Your task to perform on an android device: refresh tabs in the chrome app Image 0: 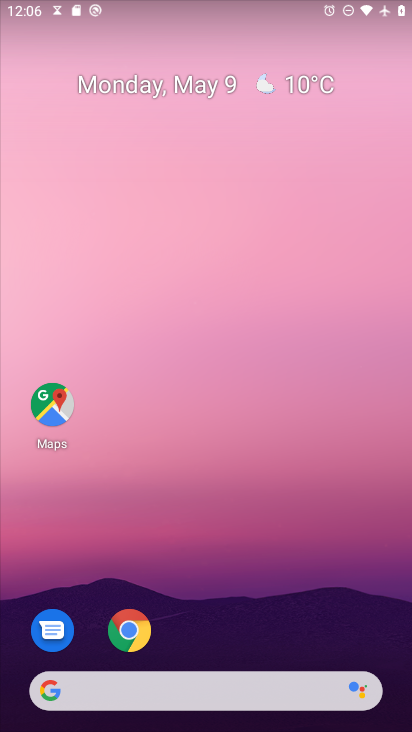
Step 0: drag from (165, 691) to (364, 51)
Your task to perform on an android device: refresh tabs in the chrome app Image 1: 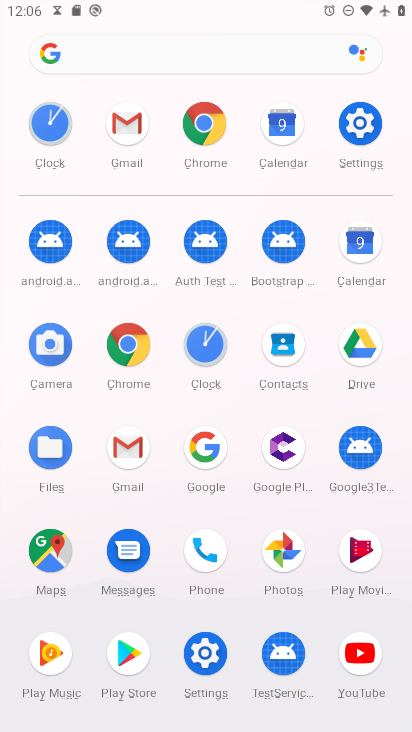
Step 1: click (207, 131)
Your task to perform on an android device: refresh tabs in the chrome app Image 2: 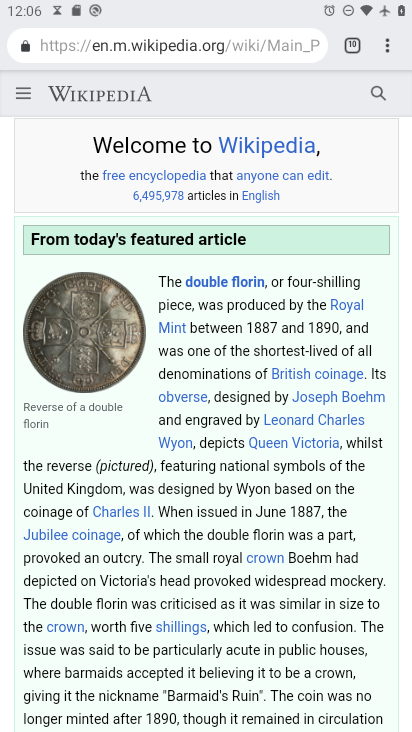
Step 2: click (385, 57)
Your task to perform on an android device: refresh tabs in the chrome app Image 3: 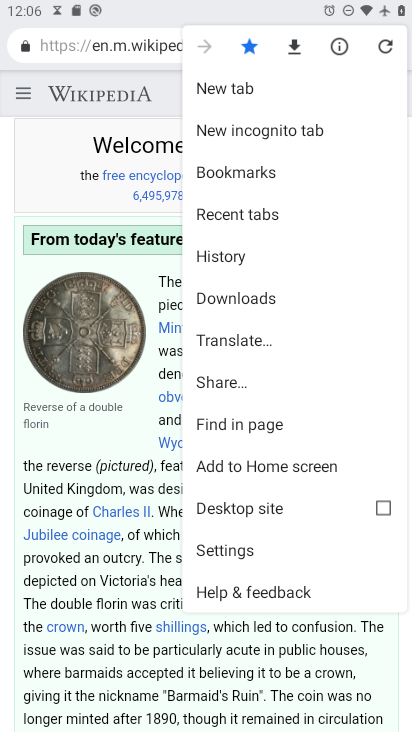
Step 3: click (385, 48)
Your task to perform on an android device: refresh tabs in the chrome app Image 4: 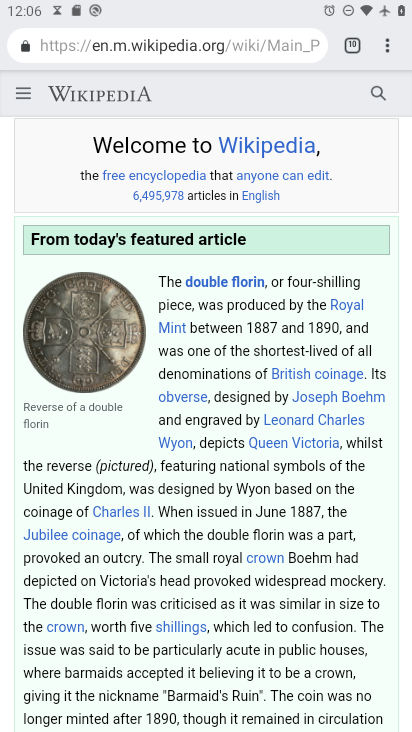
Step 4: task complete